Your task to perform on an android device: Go to Google maps Image 0: 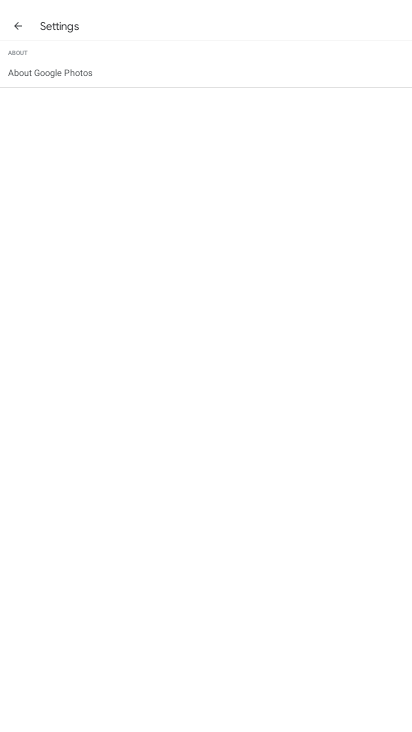
Step 0: click (20, 19)
Your task to perform on an android device: Go to Google maps Image 1: 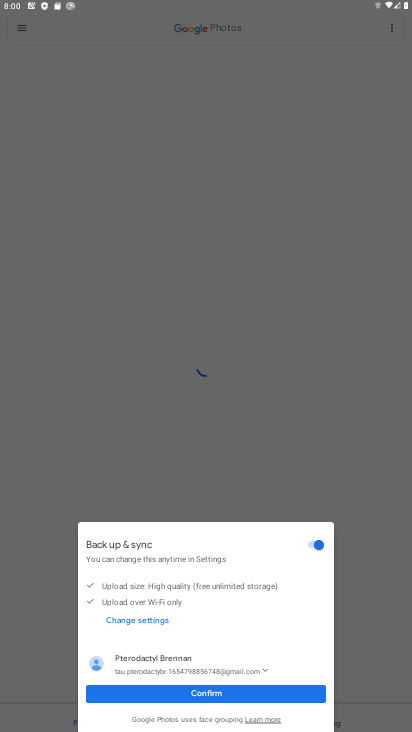
Step 1: click (218, 687)
Your task to perform on an android device: Go to Google maps Image 2: 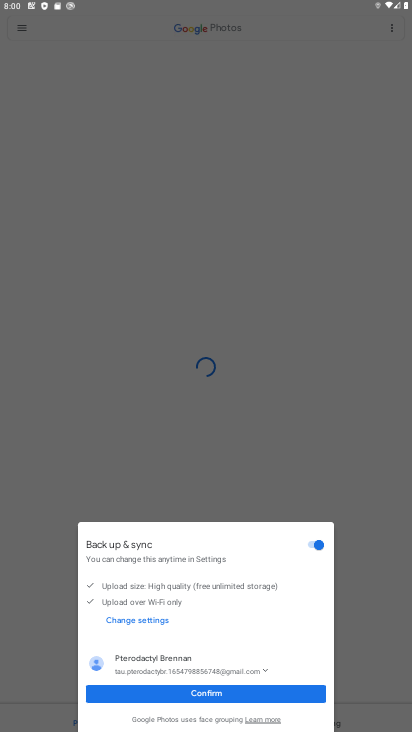
Step 2: click (218, 687)
Your task to perform on an android device: Go to Google maps Image 3: 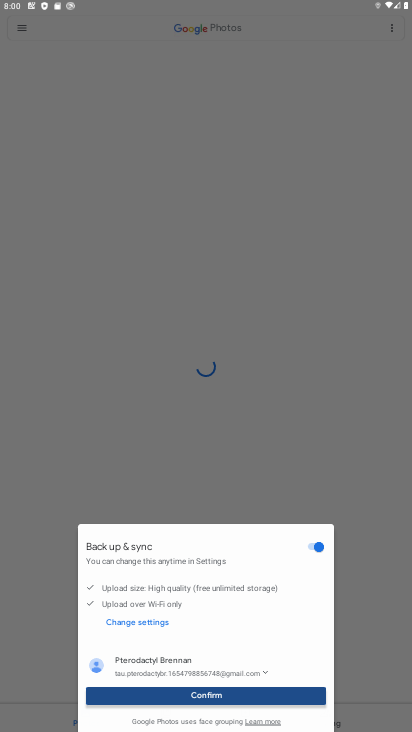
Step 3: click (218, 687)
Your task to perform on an android device: Go to Google maps Image 4: 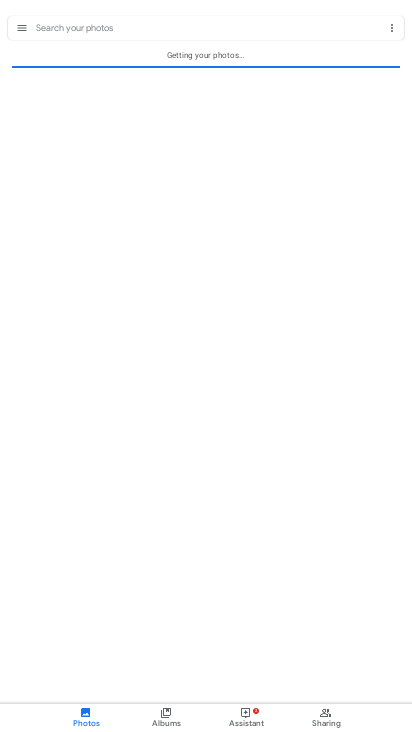
Step 4: press home button
Your task to perform on an android device: Go to Google maps Image 5: 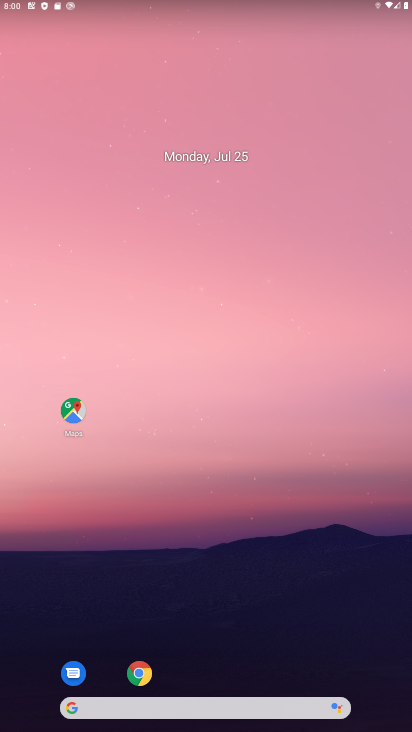
Step 5: drag from (210, 579) to (213, 83)
Your task to perform on an android device: Go to Google maps Image 6: 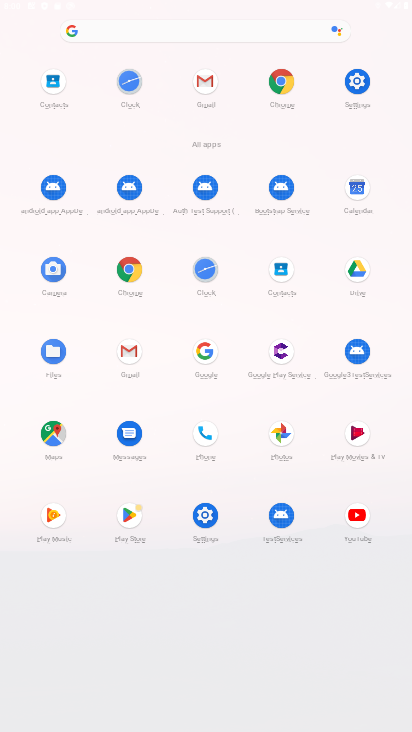
Step 6: click (46, 434)
Your task to perform on an android device: Go to Google maps Image 7: 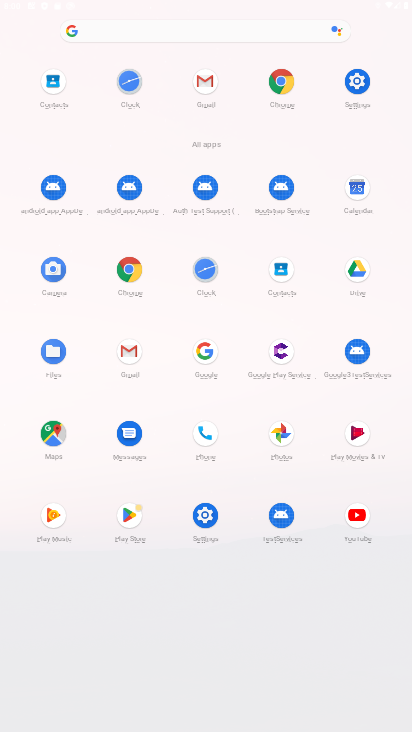
Step 7: click (46, 434)
Your task to perform on an android device: Go to Google maps Image 8: 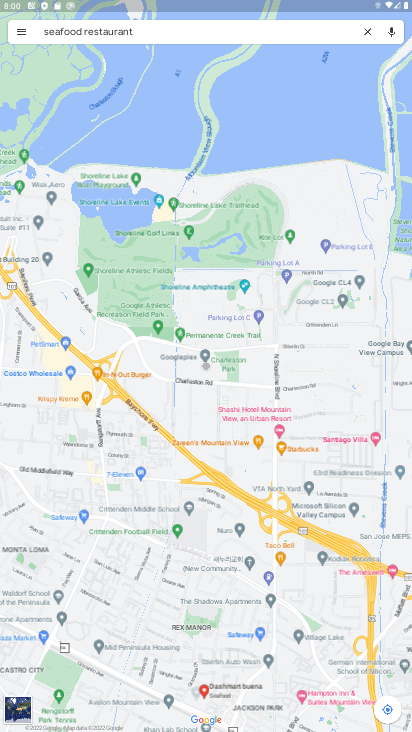
Step 8: click (99, 24)
Your task to perform on an android device: Go to Google maps Image 9: 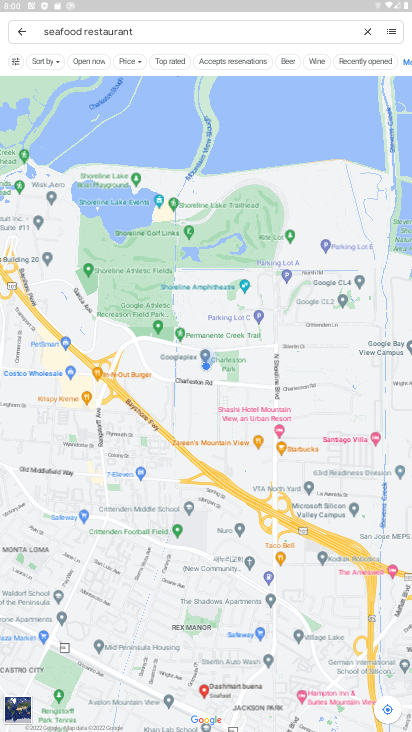
Step 9: task complete